Your task to perform on an android device: turn off sleep mode Image 0: 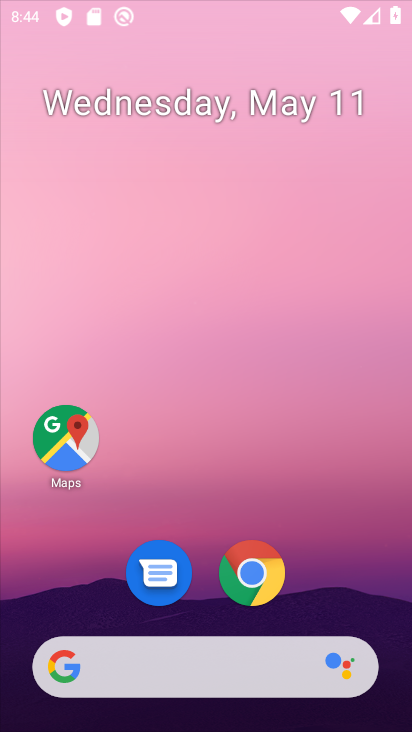
Step 0: click (342, 203)
Your task to perform on an android device: turn off sleep mode Image 1: 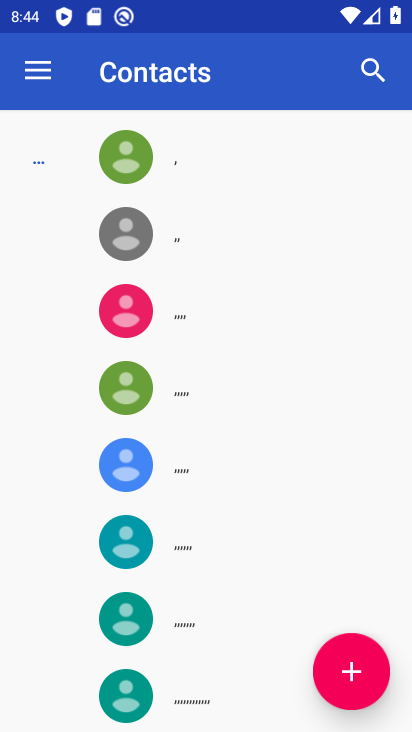
Step 1: press home button
Your task to perform on an android device: turn off sleep mode Image 2: 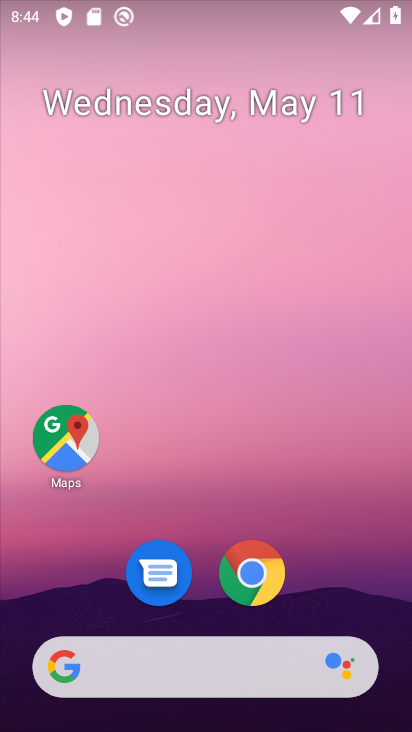
Step 2: drag from (214, 504) to (217, 4)
Your task to perform on an android device: turn off sleep mode Image 3: 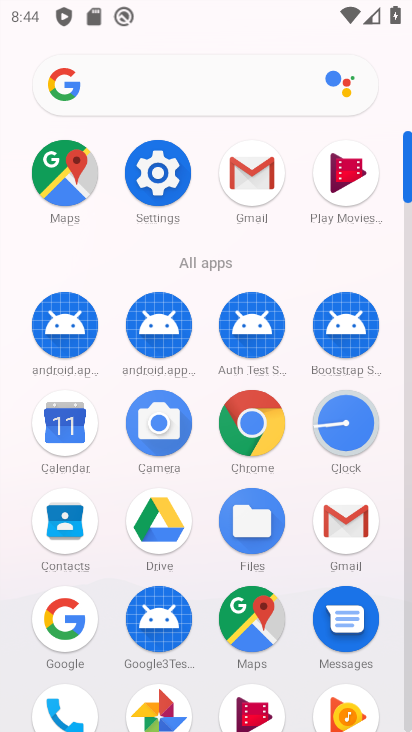
Step 3: click (161, 187)
Your task to perform on an android device: turn off sleep mode Image 4: 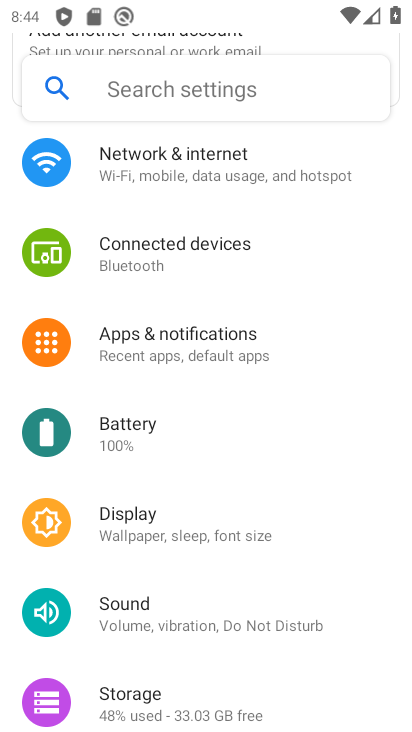
Step 4: drag from (183, 647) to (193, 548)
Your task to perform on an android device: turn off sleep mode Image 5: 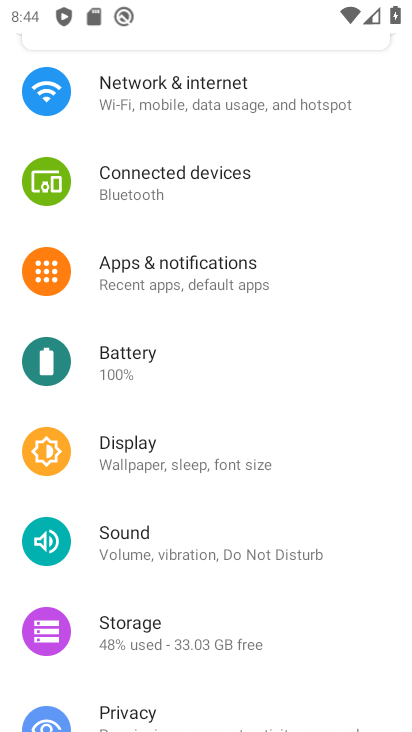
Step 5: click (214, 470)
Your task to perform on an android device: turn off sleep mode Image 6: 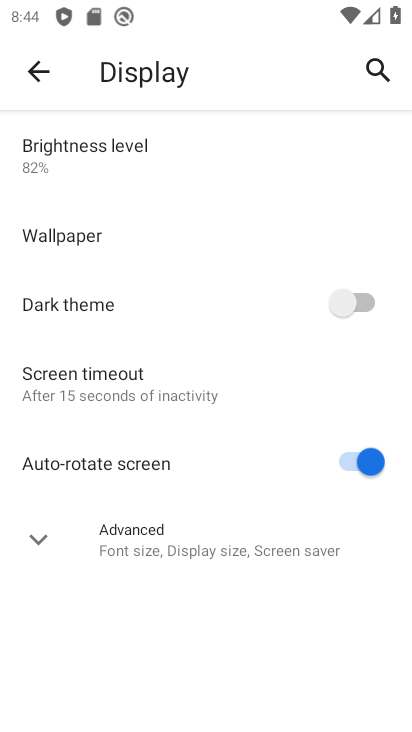
Step 6: click (173, 392)
Your task to perform on an android device: turn off sleep mode Image 7: 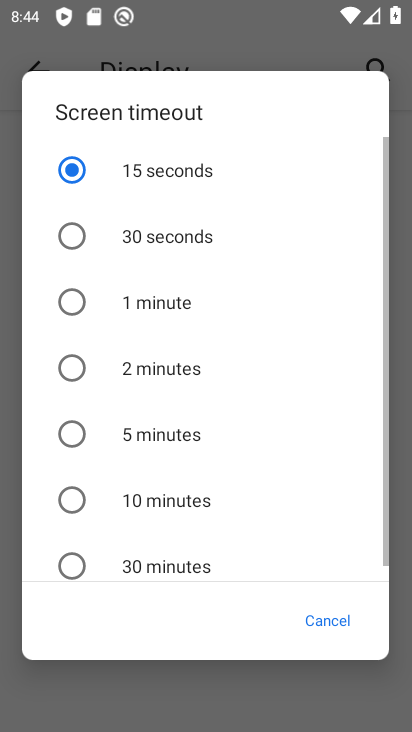
Step 7: click (168, 178)
Your task to perform on an android device: turn off sleep mode Image 8: 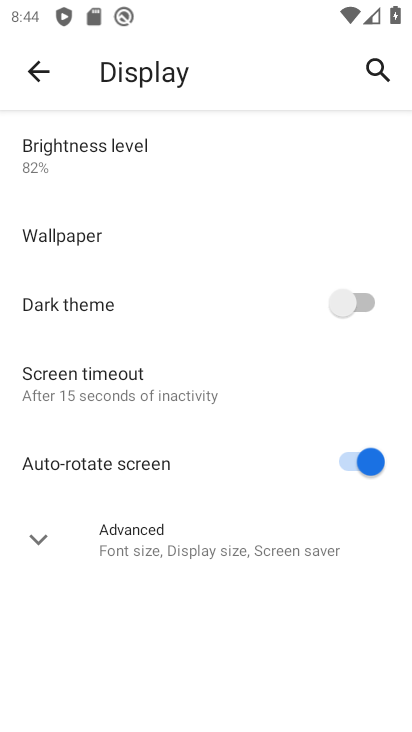
Step 8: task complete